Your task to perform on an android device: check android version Image 0: 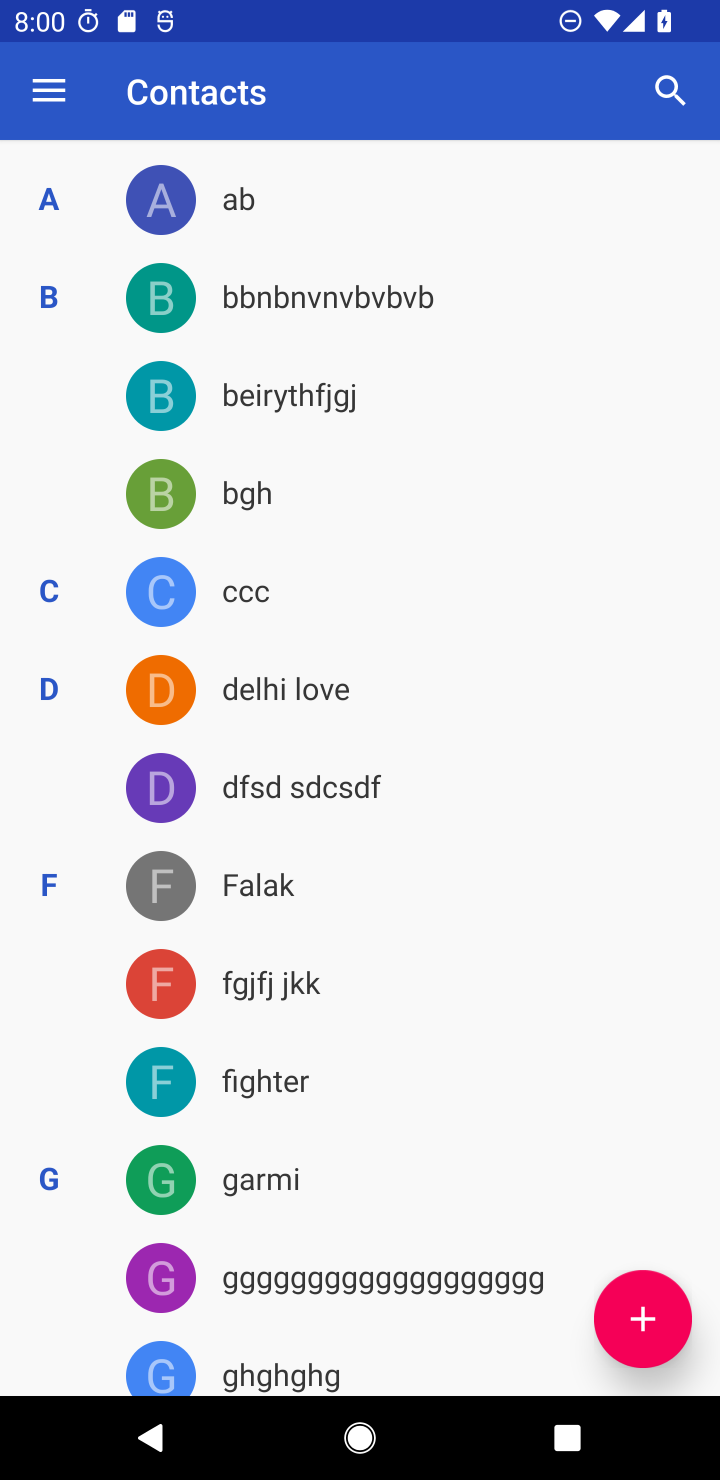
Step 0: press home button
Your task to perform on an android device: check android version Image 1: 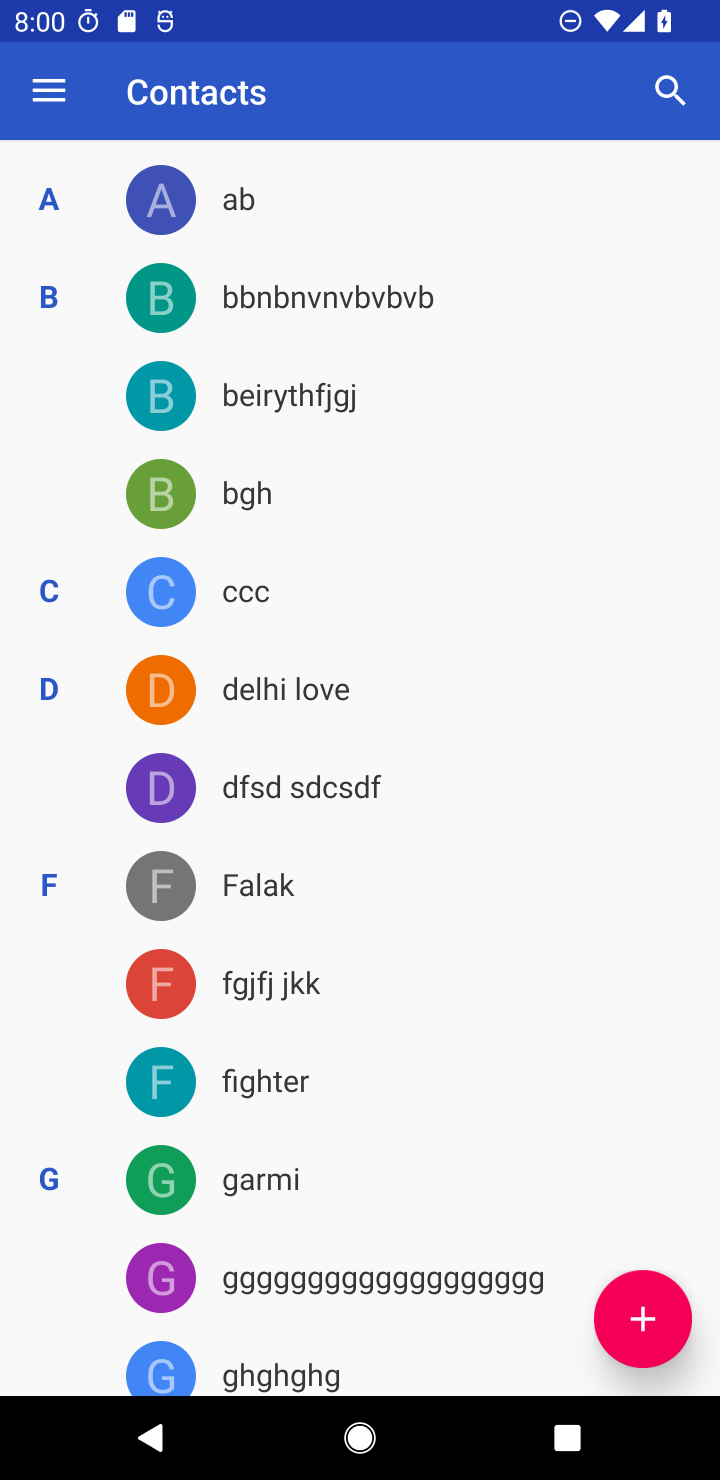
Step 1: press home button
Your task to perform on an android device: check android version Image 2: 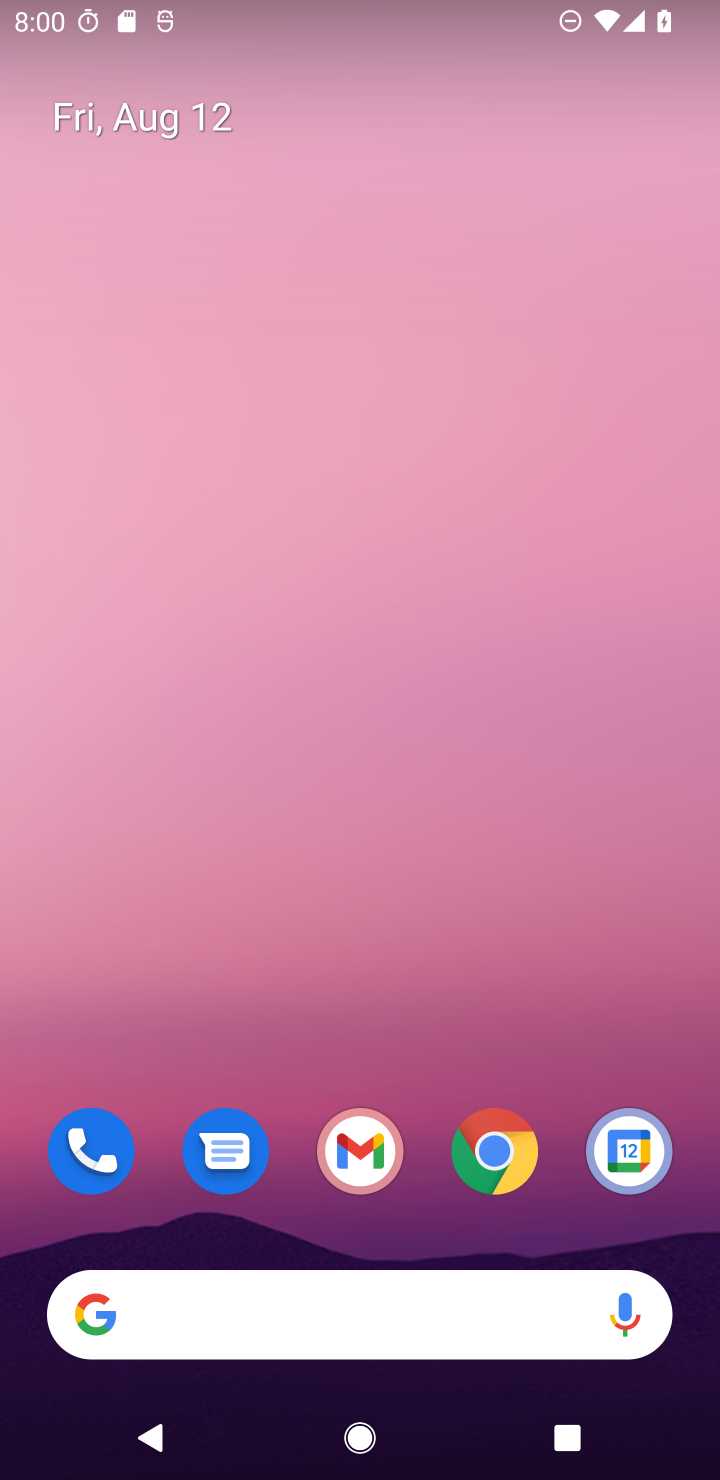
Step 2: drag from (385, 809) to (434, 152)
Your task to perform on an android device: check android version Image 3: 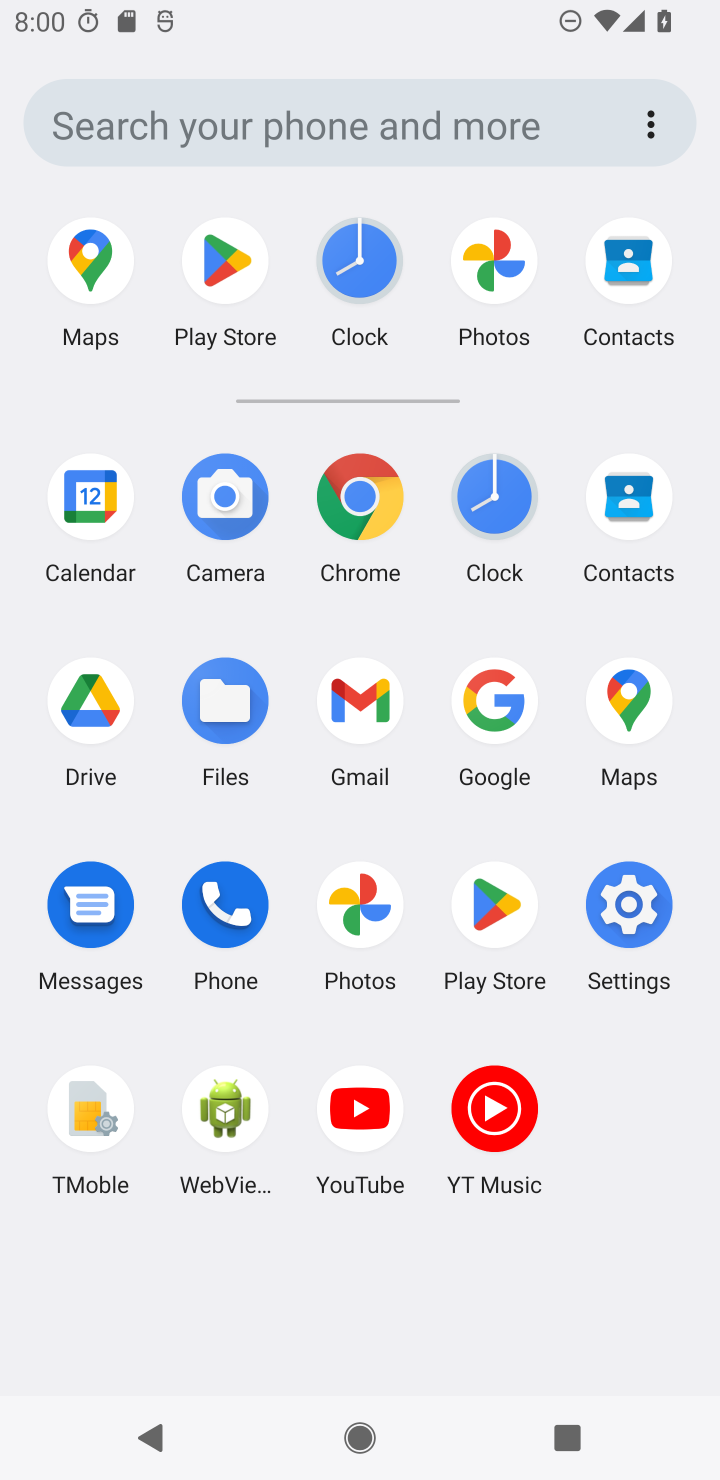
Step 3: click (662, 912)
Your task to perform on an android device: check android version Image 4: 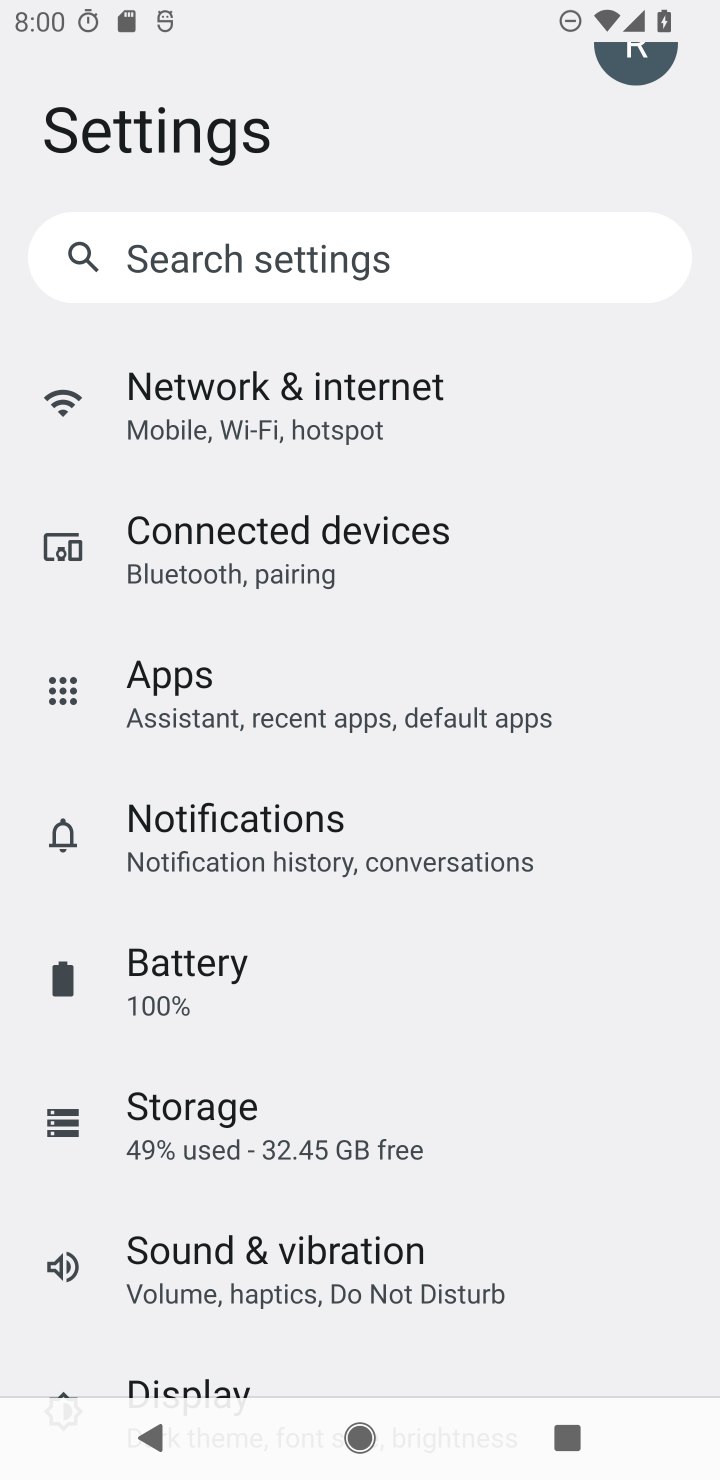
Step 4: drag from (418, 1083) to (529, 29)
Your task to perform on an android device: check android version Image 5: 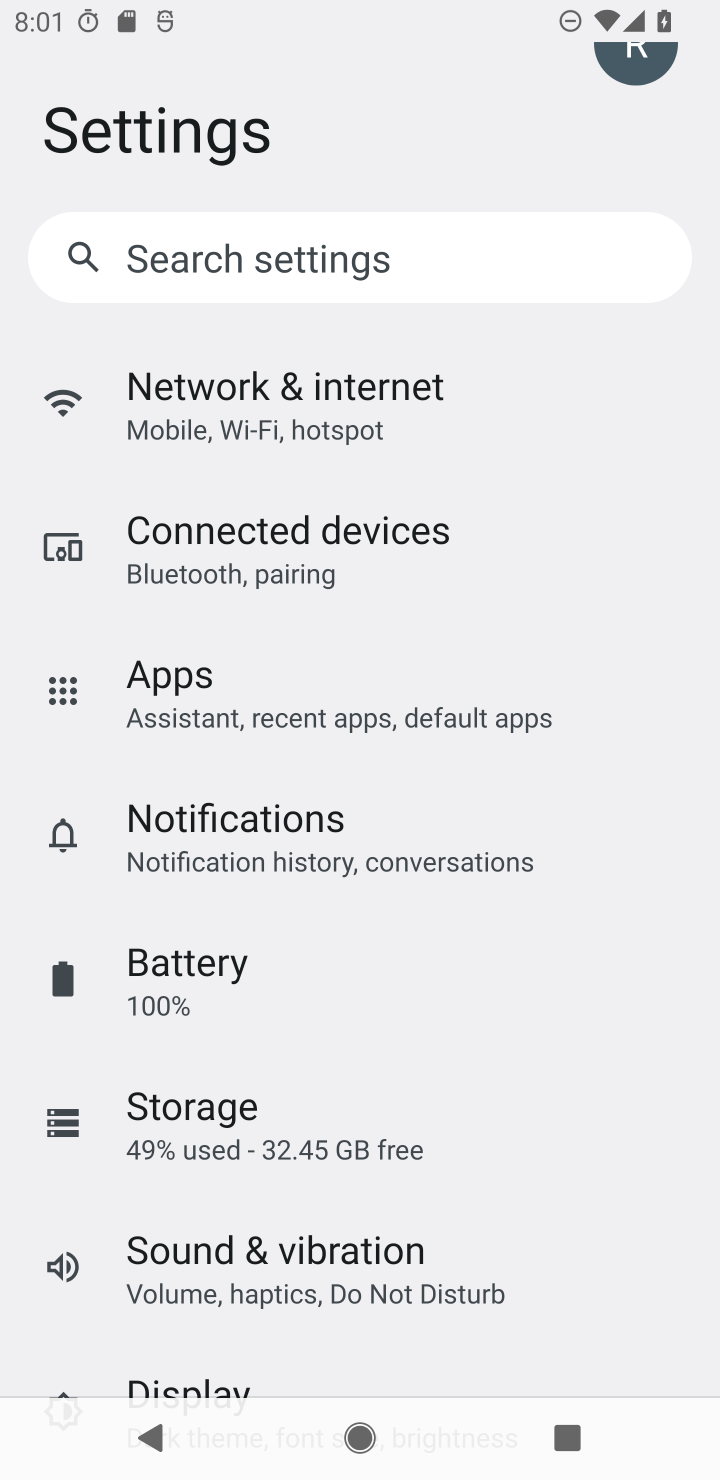
Step 5: drag from (527, 1227) to (539, 169)
Your task to perform on an android device: check android version Image 6: 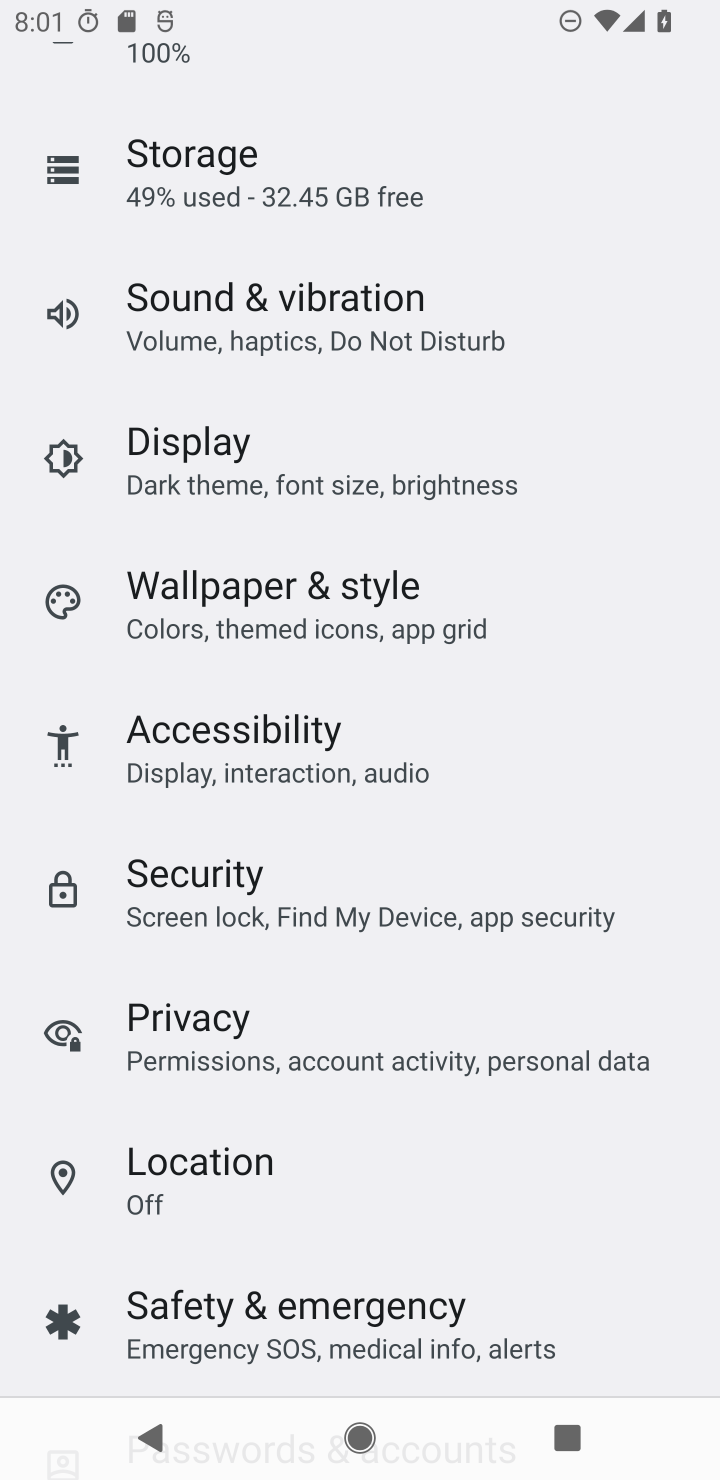
Step 6: drag from (486, 1239) to (567, 264)
Your task to perform on an android device: check android version Image 7: 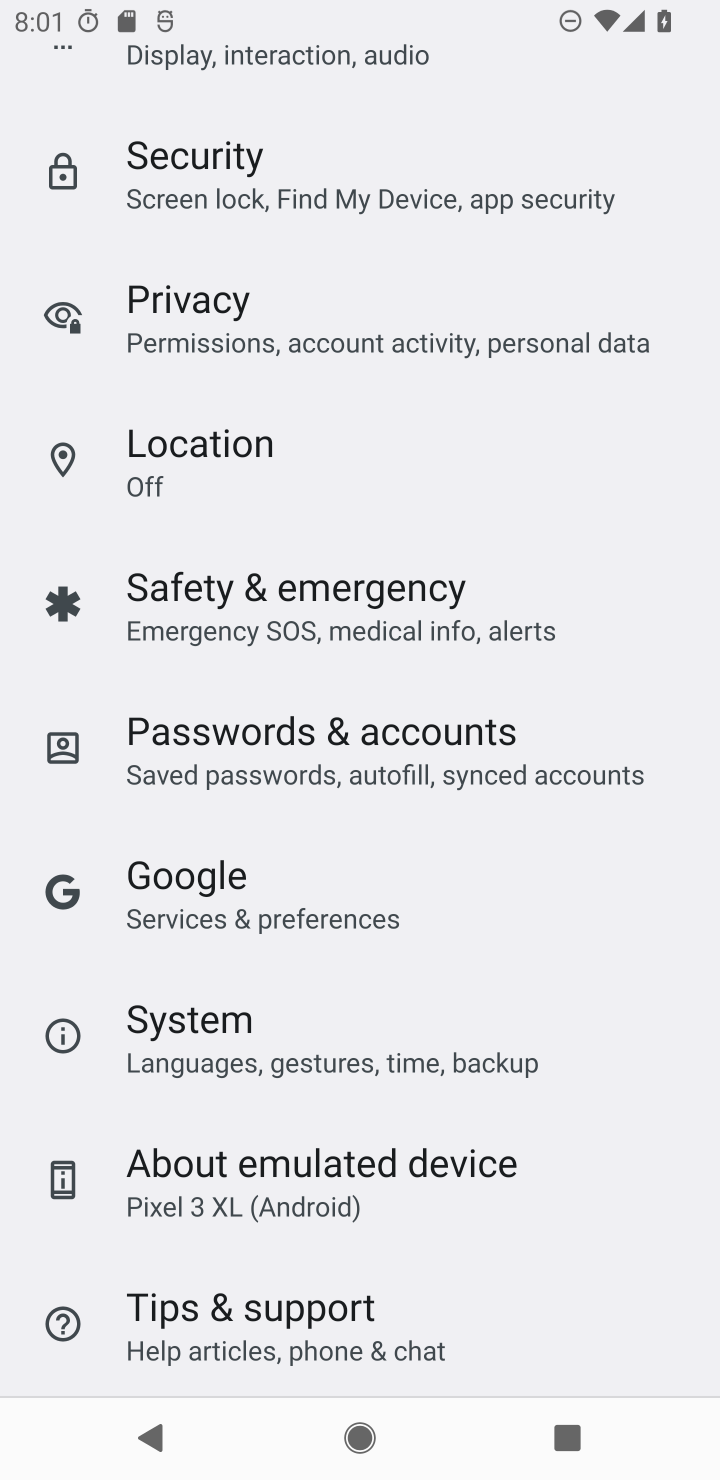
Step 7: click (305, 1173)
Your task to perform on an android device: check android version Image 8: 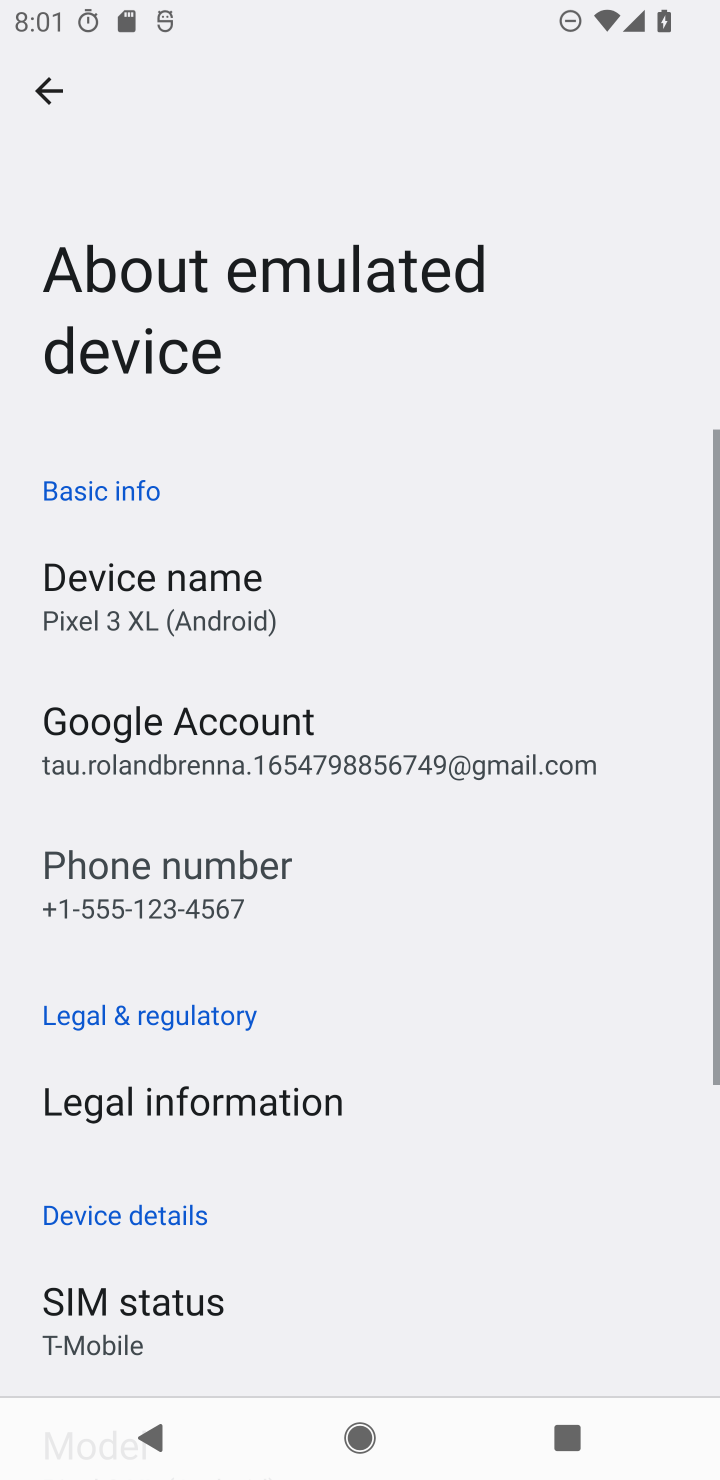
Step 8: drag from (398, 1303) to (510, 429)
Your task to perform on an android device: check android version Image 9: 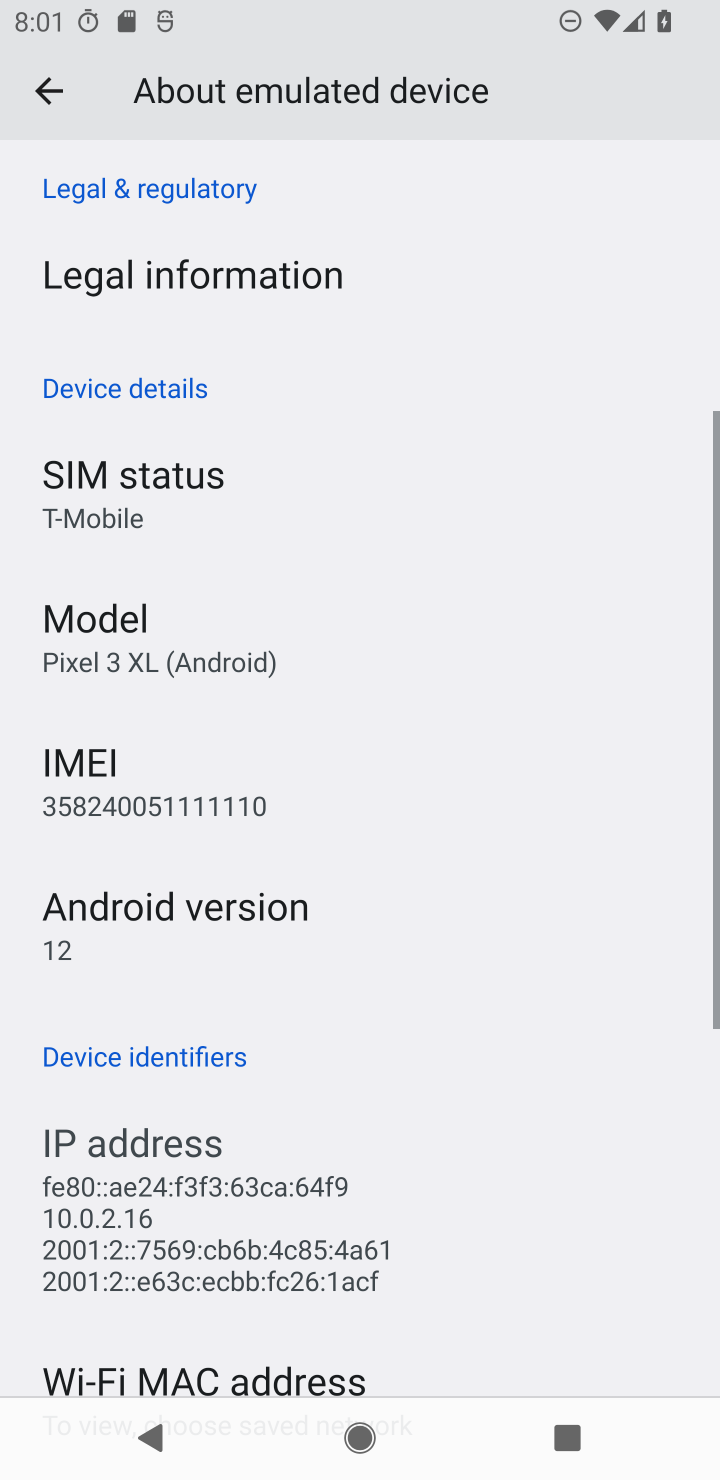
Step 9: click (153, 945)
Your task to perform on an android device: check android version Image 10: 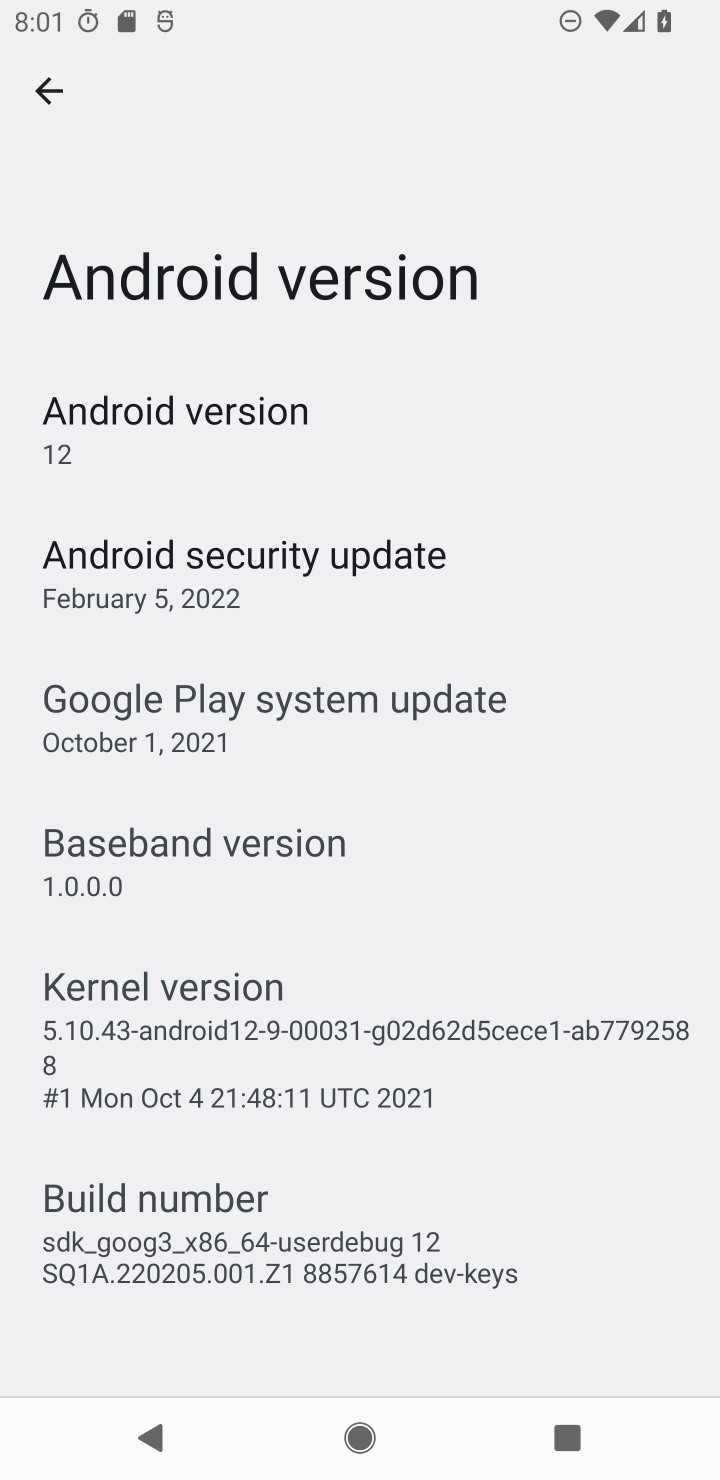
Step 10: task complete